Your task to perform on an android device: turn notification dots on Image 0: 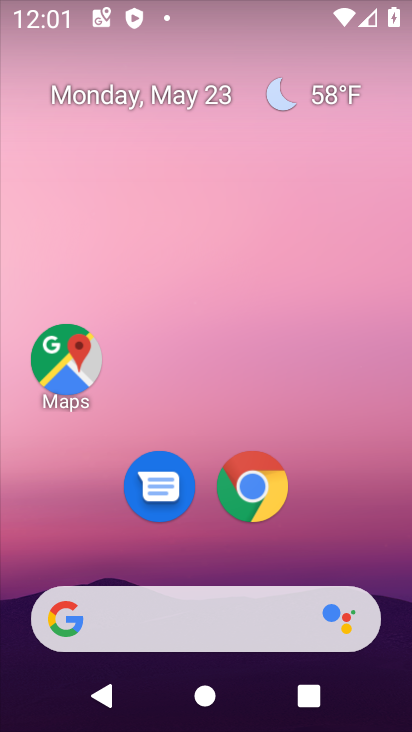
Step 0: drag from (401, 614) to (334, 99)
Your task to perform on an android device: turn notification dots on Image 1: 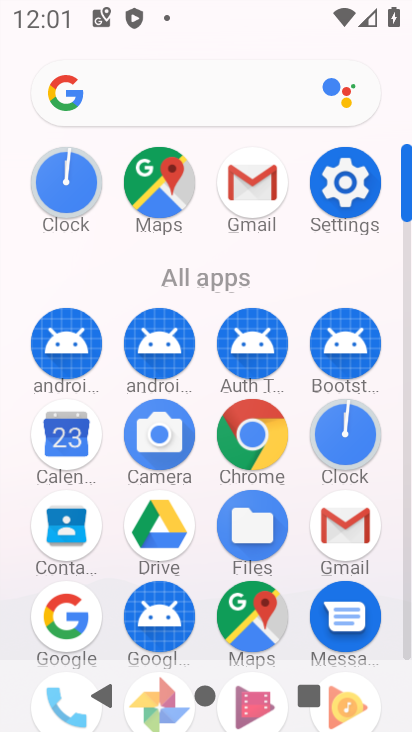
Step 1: click (408, 641)
Your task to perform on an android device: turn notification dots on Image 2: 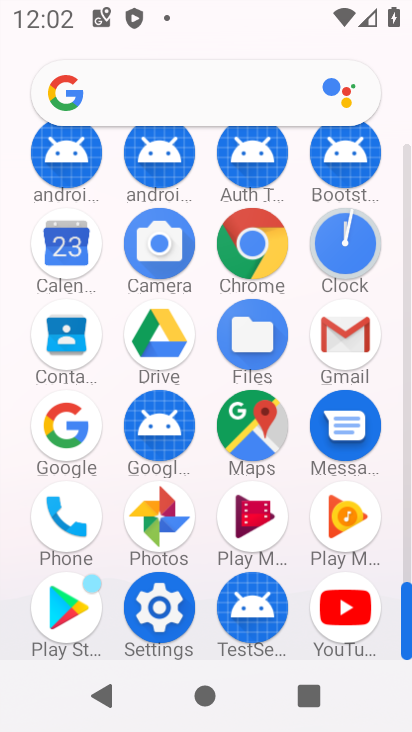
Step 2: click (164, 604)
Your task to perform on an android device: turn notification dots on Image 3: 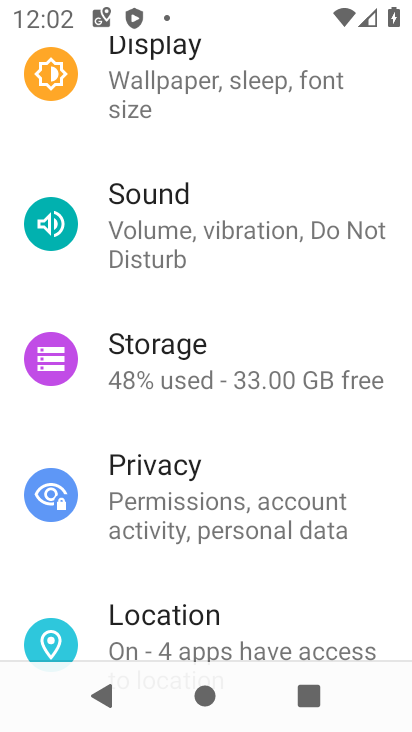
Step 3: click (164, 604)
Your task to perform on an android device: turn notification dots on Image 4: 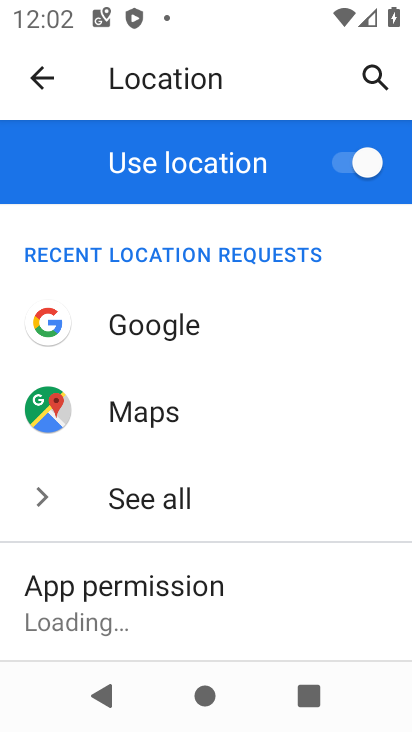
Step 4: press back button
Your task to perform on an android device: turn notification dots on Image 5: 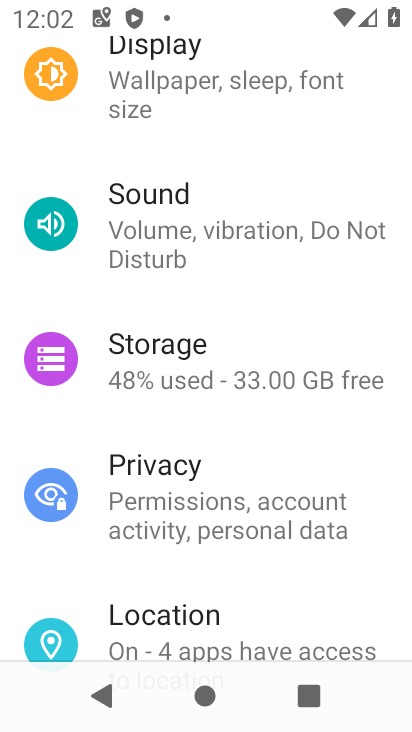
Step 5: drag from (291, 115) to (373, 720)
Your task to perform on an android device: turn notification dots on Image 6: 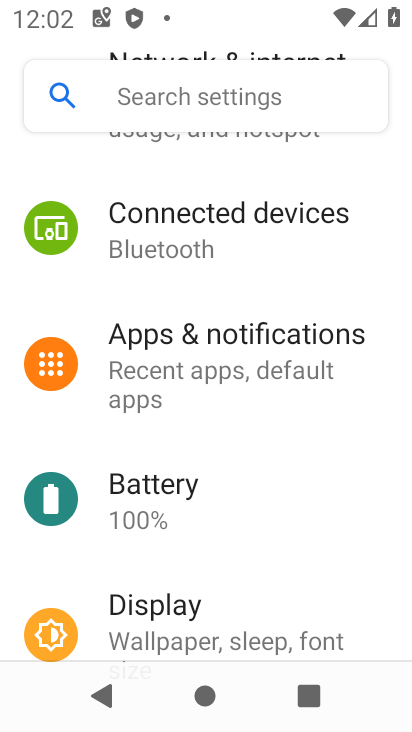
Step 6: click (207, 362)
Your task to perform on an android device: turn notification dots on Image 7: 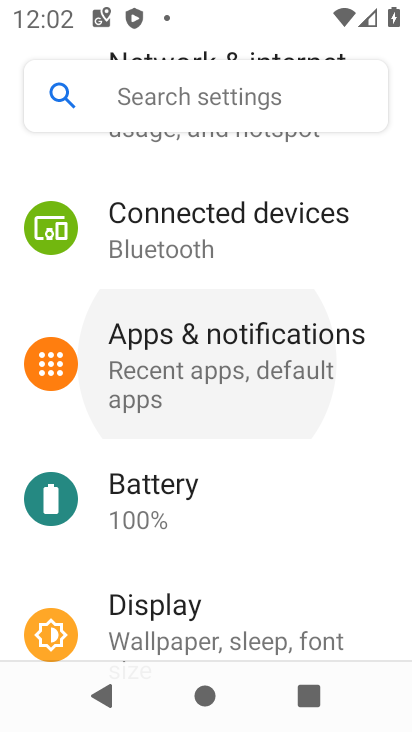
Step 7: click (207, 362)
Your task to perform on an android device: turn notification dots on Image 8: 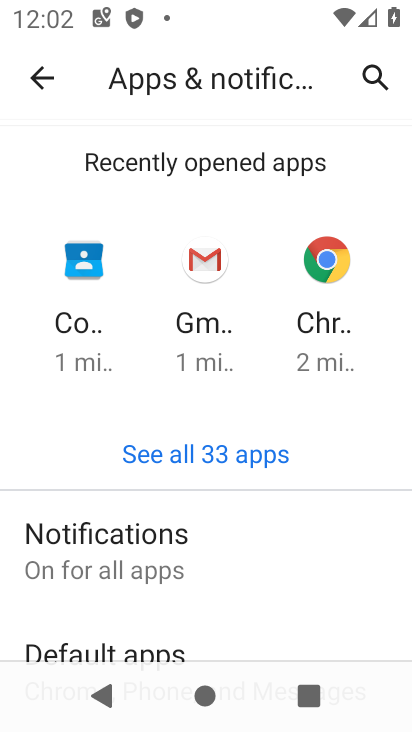
Step 8: click (134, 537)
Your task to perform on an android device: turn notification dots on Image 9: 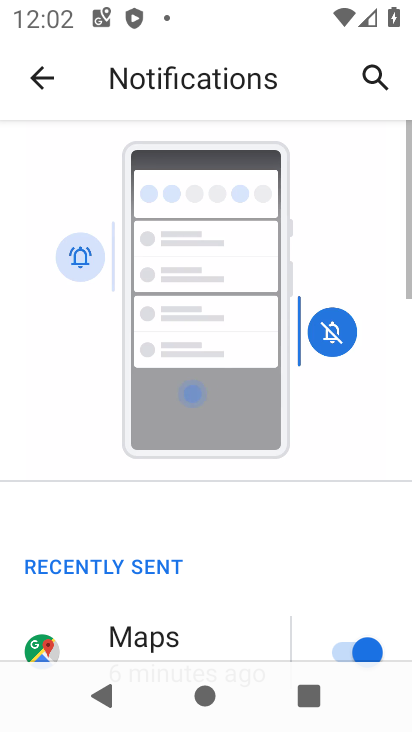
Step 9: drag from (134, 537) to (143, 82)
Your task to perform on an android device: turn notification dots on Image 10: 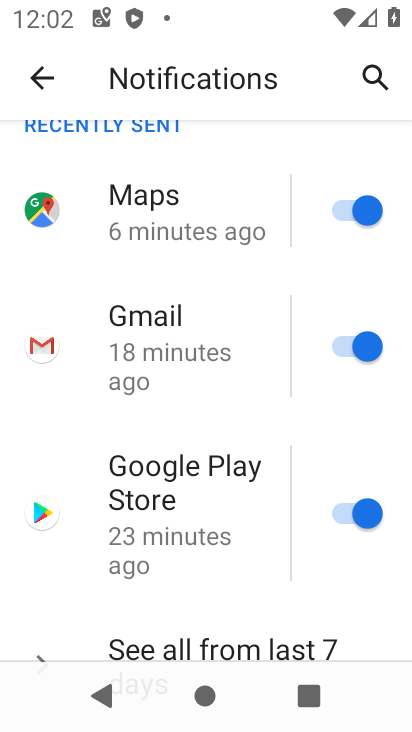
Step 10: drag from (267, 614) to (137, 77)
Your task to perform on an android device: turn notification dots on Image 11: 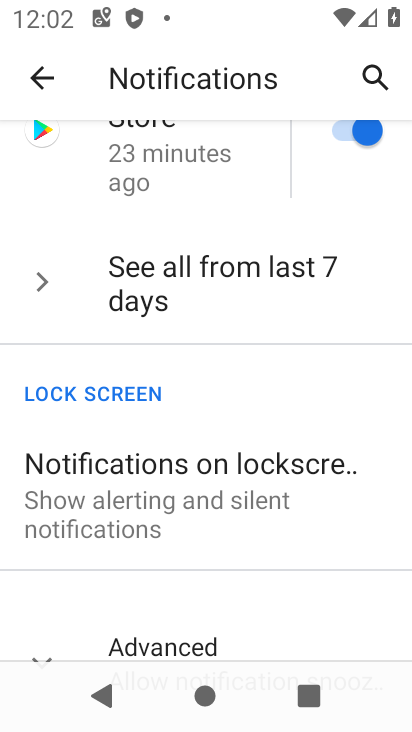
Step 11: drag from (110, 607) to (204, 155)
Your task to perform on an android device: turn notification dots on Image 12: 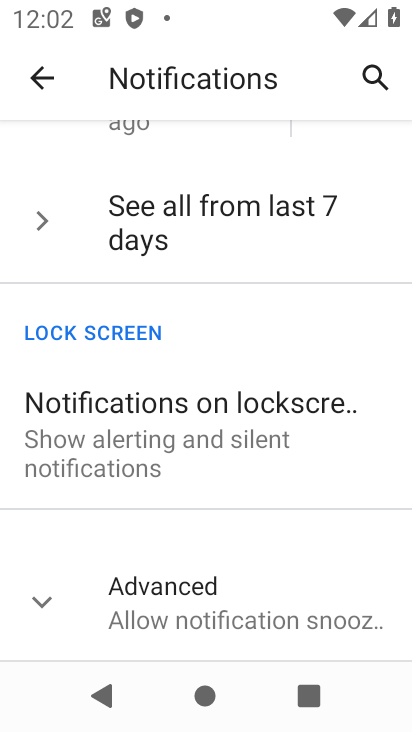
Step 12: click (56, 600)
Your task to perform on an android device: turn notification dots on Image 13: 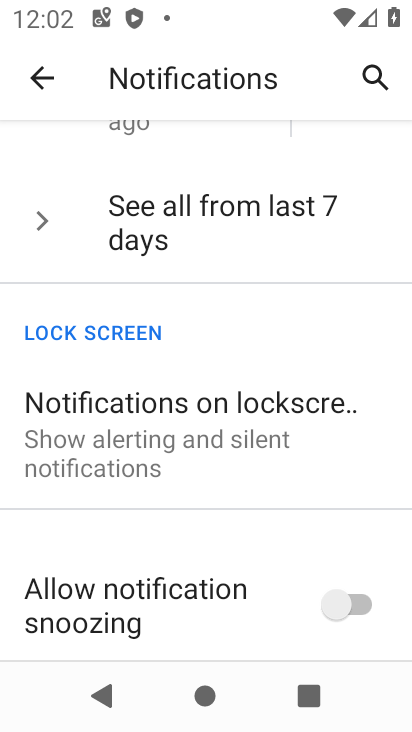
Step 13: task complete